Your task to perform on an android device: find which apps use the phone's location Image 0: 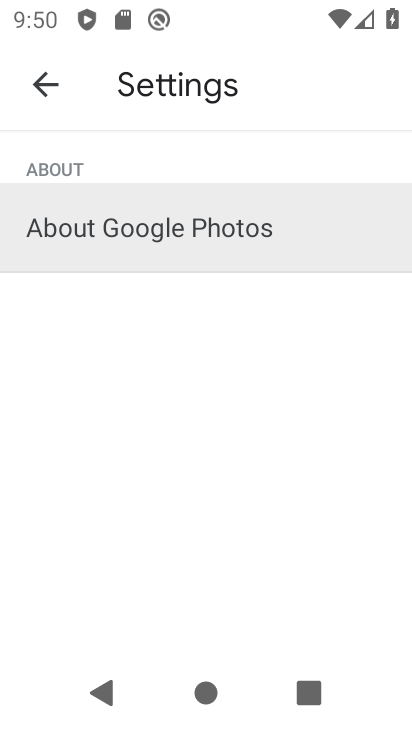
Step 0: press home button
Your task to perform on an android device: find which apps use the phone's location Image 1: 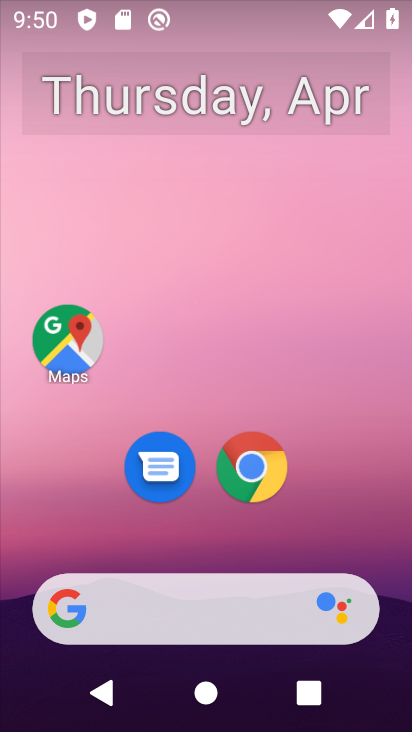
Step 1: drag from (344, 535) to (286, 222)
Your task to perform on an android device: find which apps use the phone's location Image 2: 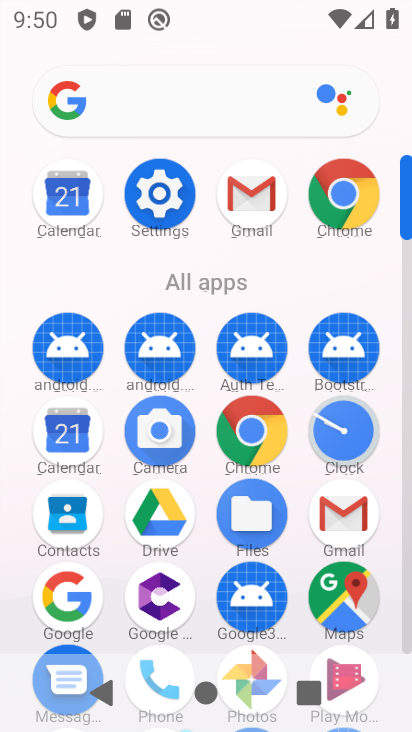
Step 2: click (410, 625)
Your task to perform on an android device: find which apps use the phone's location Image 3: 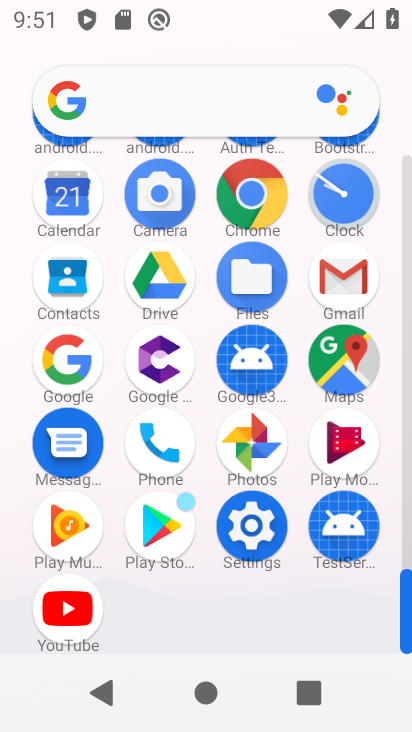
Step 3: click (248, 515)
Your task to perform on an android device: find which apps use the phone's location Image 4: 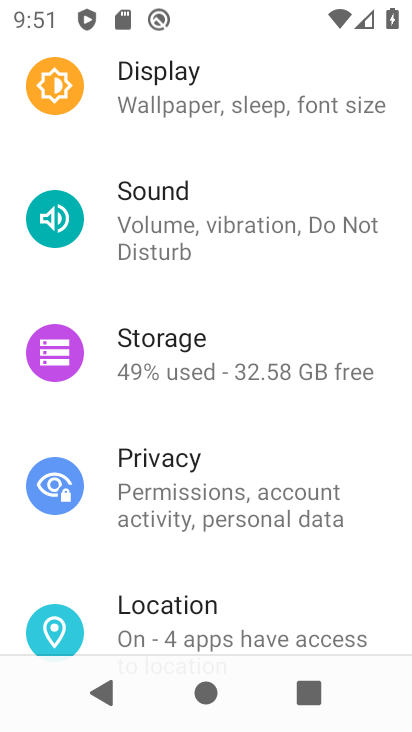
Step 4: click (268, 621)
Your task to perform on an android device: find which apps use the phone's location Image 5: 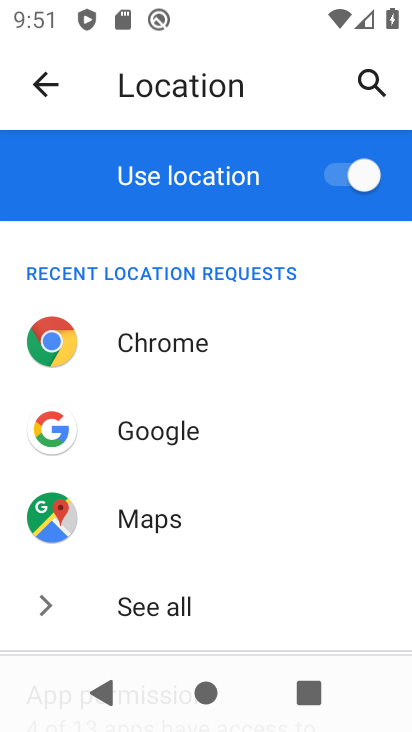
Step 5: drag from (268, 621) to (242, 292)
Your task to perform on an android device: find which apps use the phone's location Image 6: 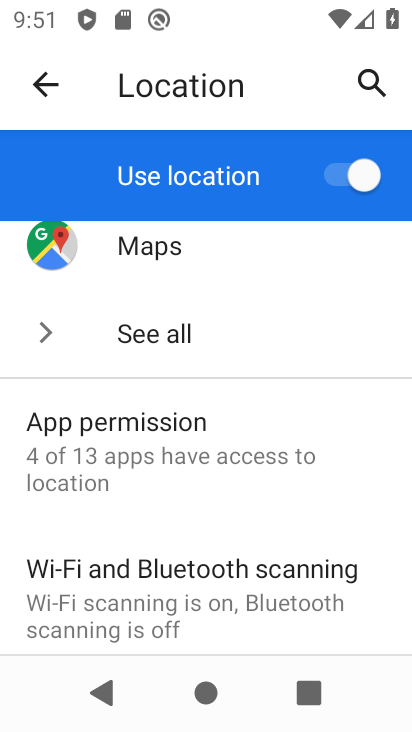
Step 6: drag from (262, 545) to (259, 449)
Your task to perform on an android device: find which apps use the phone's location Image 7: 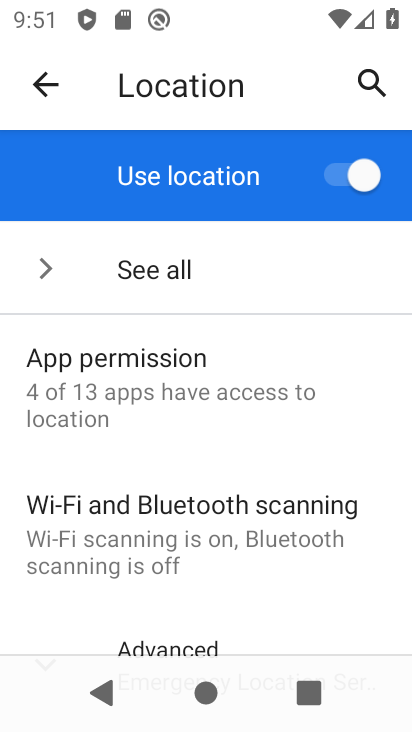
Step 7: click (249, 396)
Your task to perform on an android device: find which apps use the phone's location Image 8: 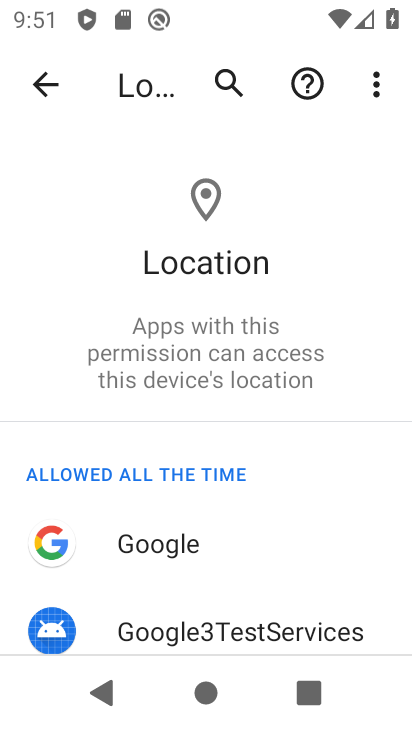
Step 8: task complete